Your task to perform on an android device: open app "McDonald's" Image 0: 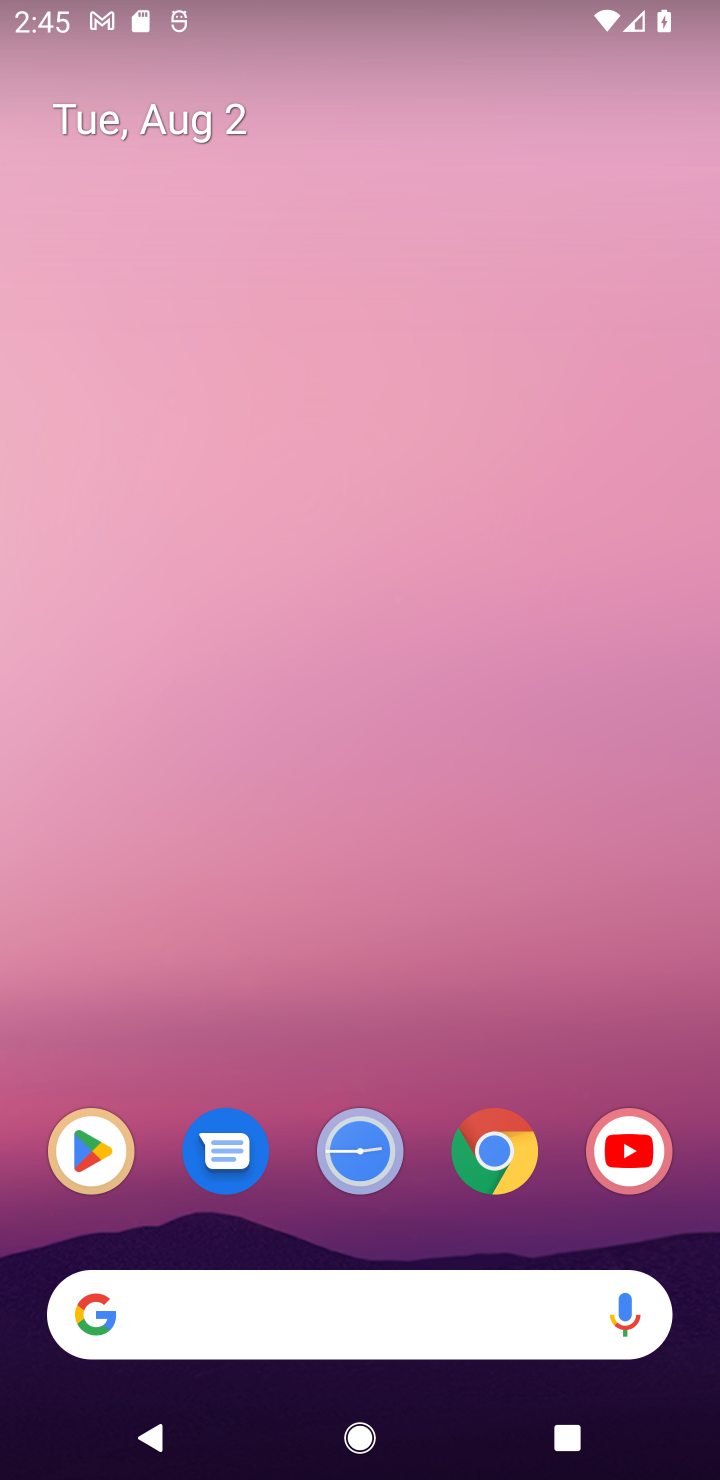
Step 0: click (93, 1157)
Your task to perform on an android device: open app "McDonald's" Image 1: 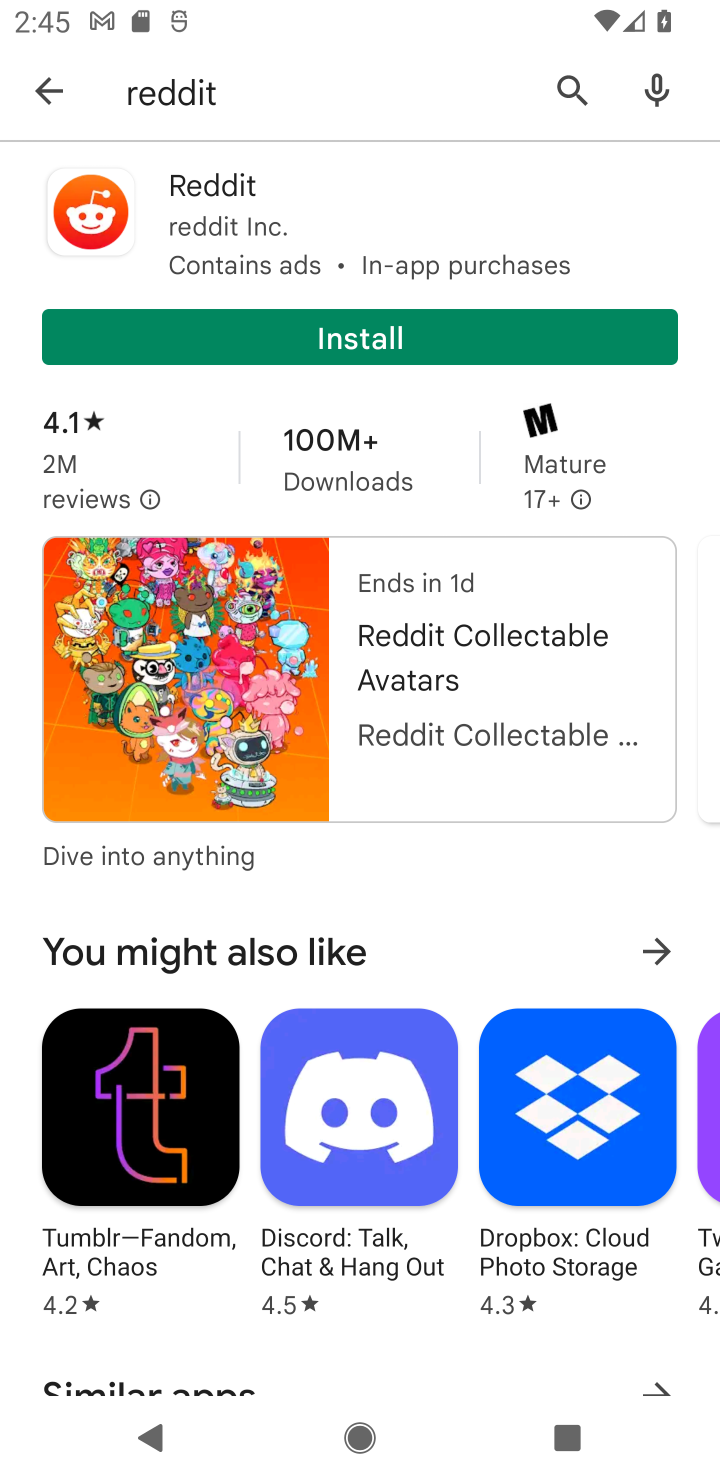
Step 1: press back button
Your task to perform on an android device: open app "McDonald's" Image 2: 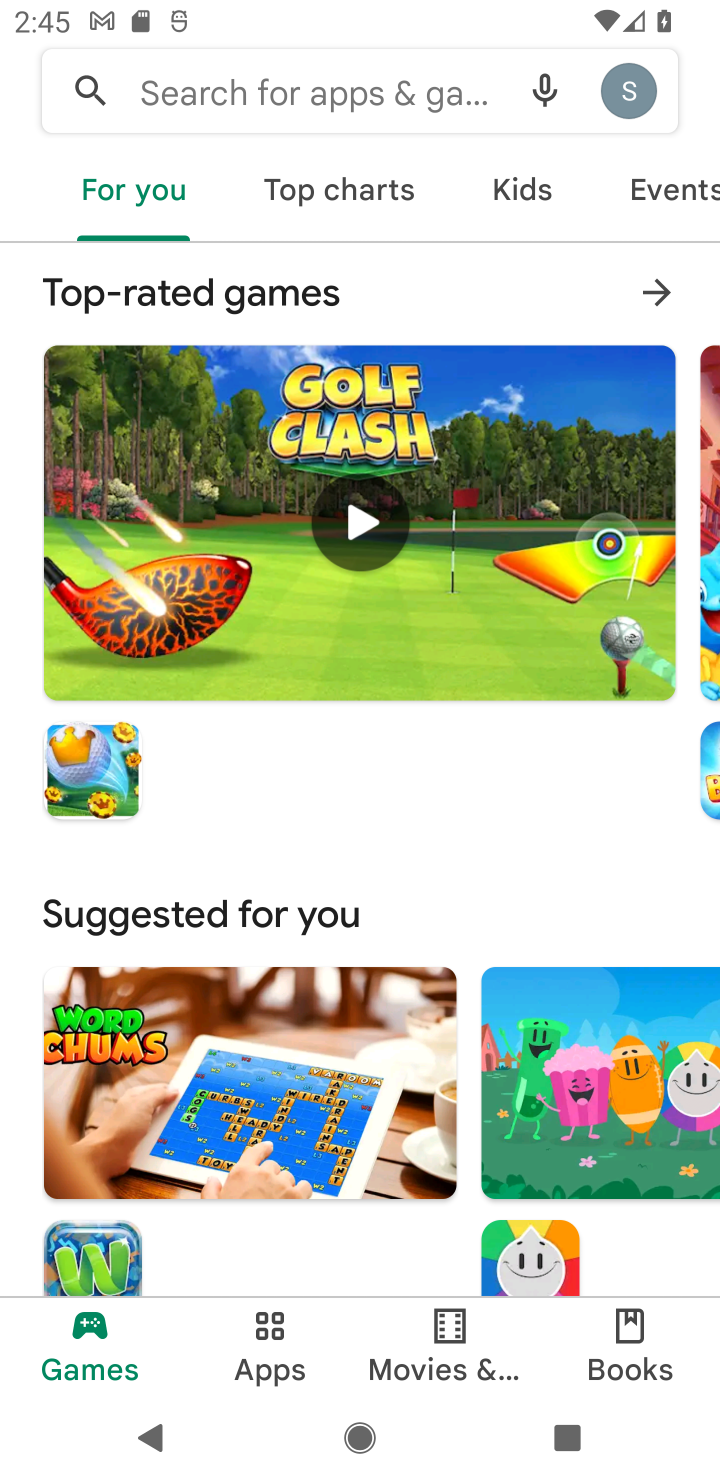
Step 2: click (244, 81)
Your task to perform on an android device: open app "McDonald's" Image 3: 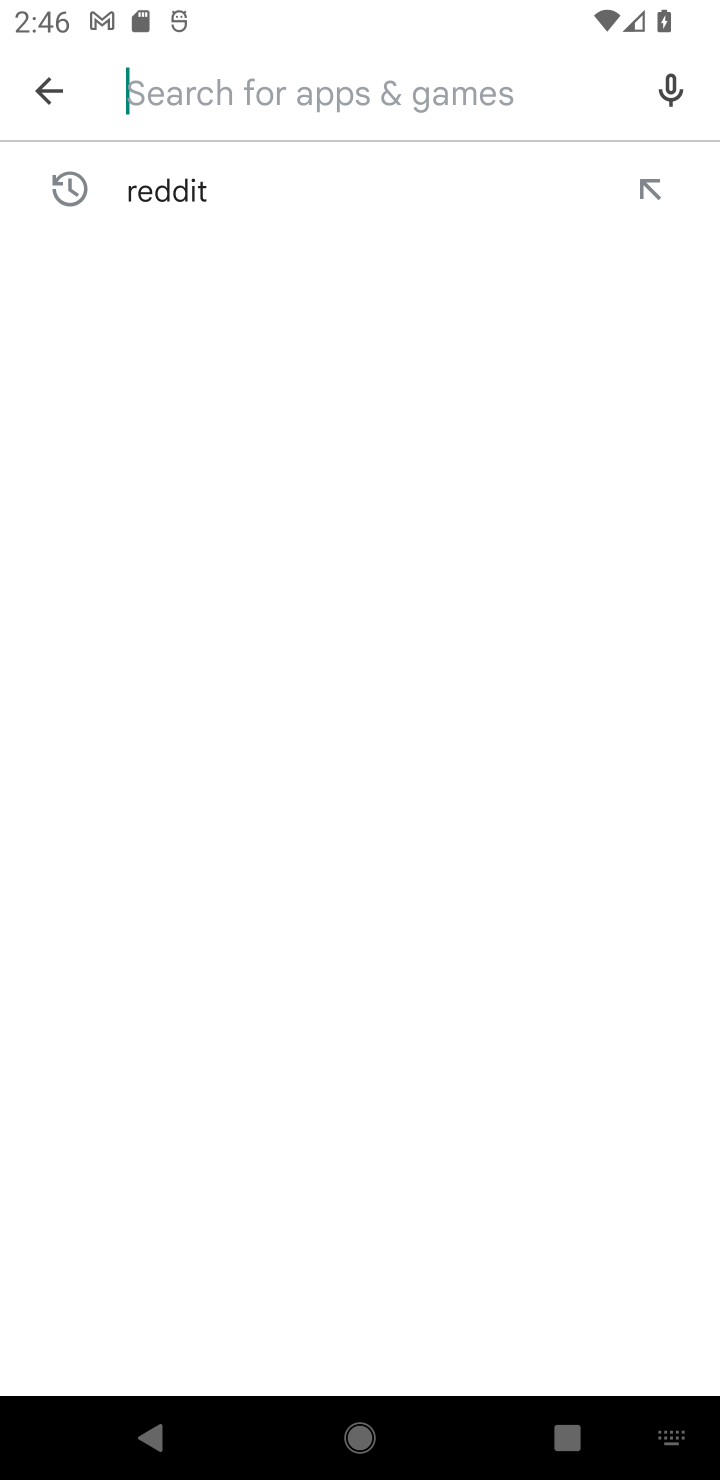
Step 3: type "McDonald's"
Your task to perform on an android device: open app "McDonald's" Image 4: 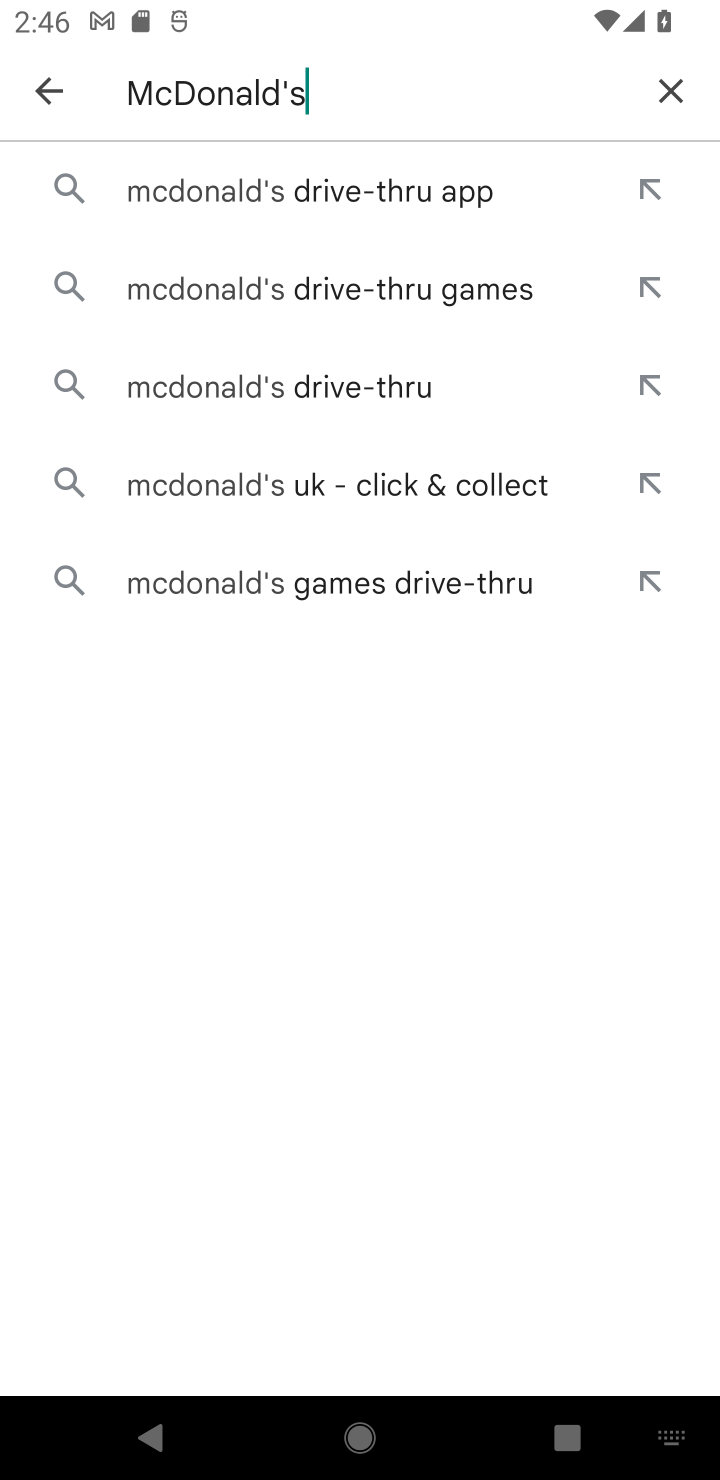
Step 4: type " app"
Your task to perform on an android device: open app "McDonald's" Image 5: 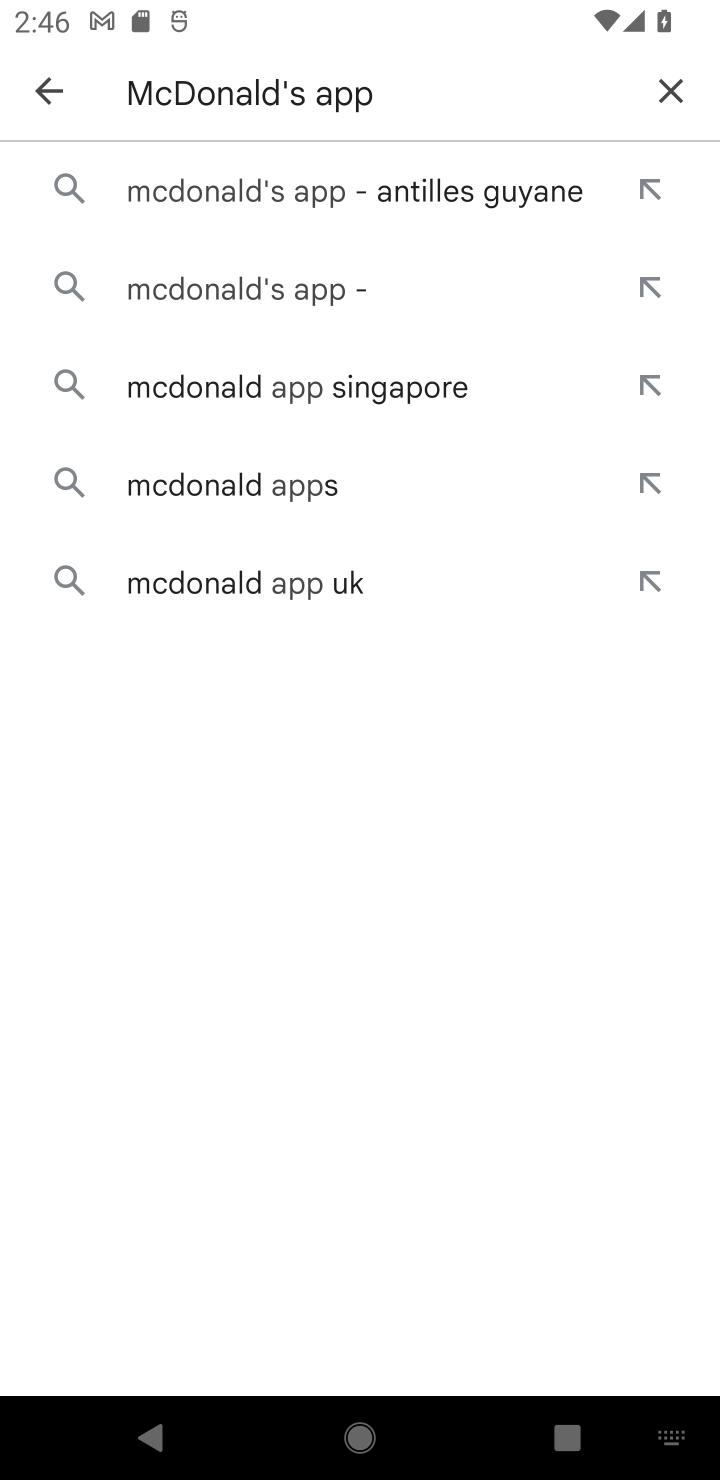
Step 5: click (351, 295)
Your task to perform on an android device: open app "McDonald's" Image 6: 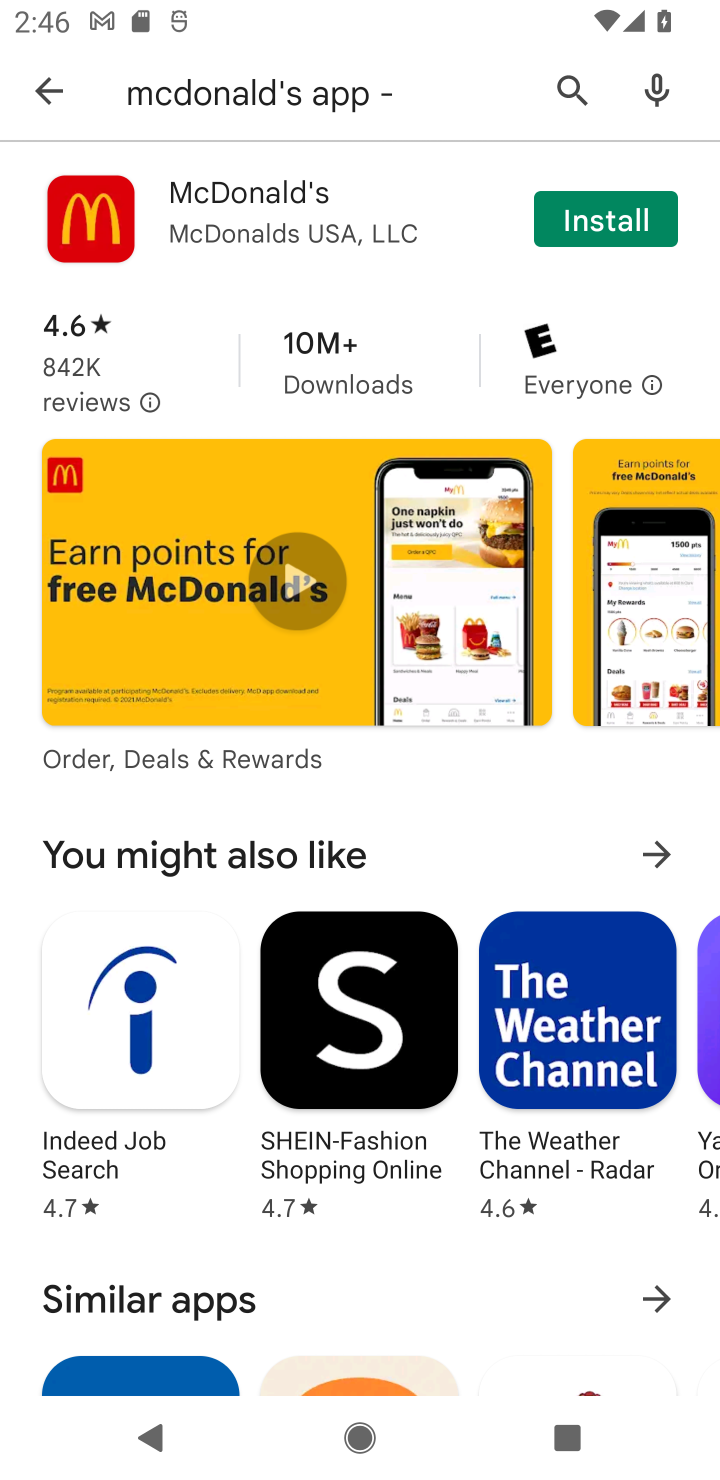
Step 6: task complete